Your task to perform on an android device: Go to privacy settings Image 0: 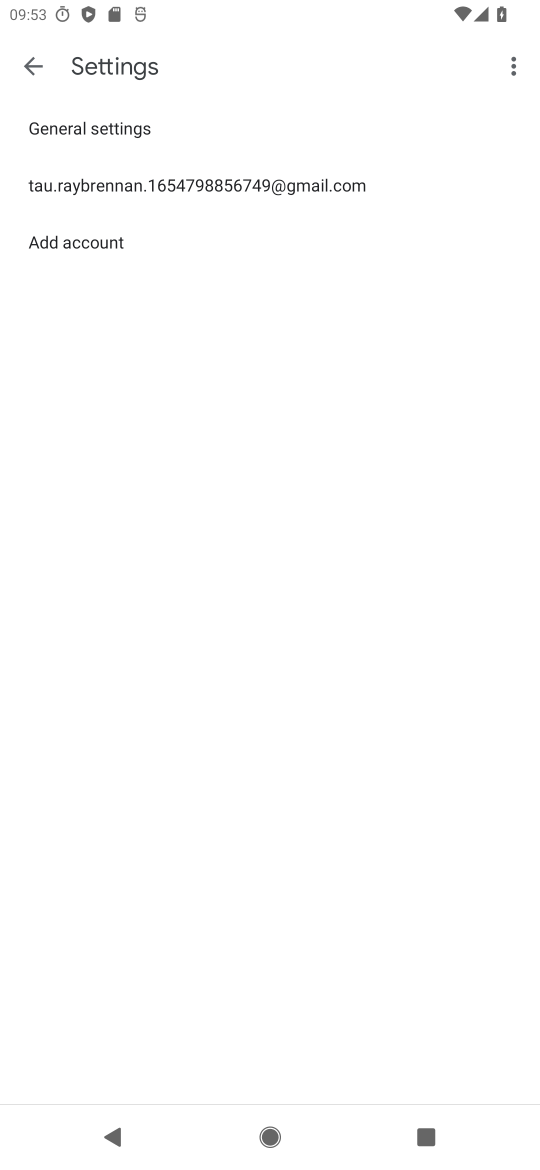
Step 0: press home button
Your task to perform on an android device: Go to privacy settings Image 1: 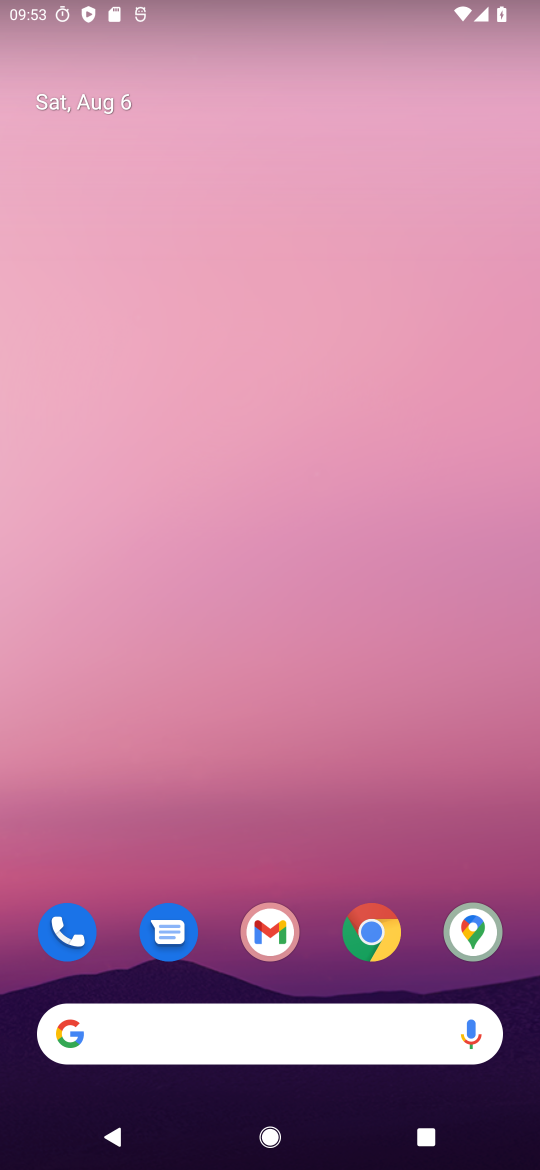
Step 1: drag from (273, 1032) to (470, 57)
Your task to perform on an android device: Go to privacy settings Image 2: 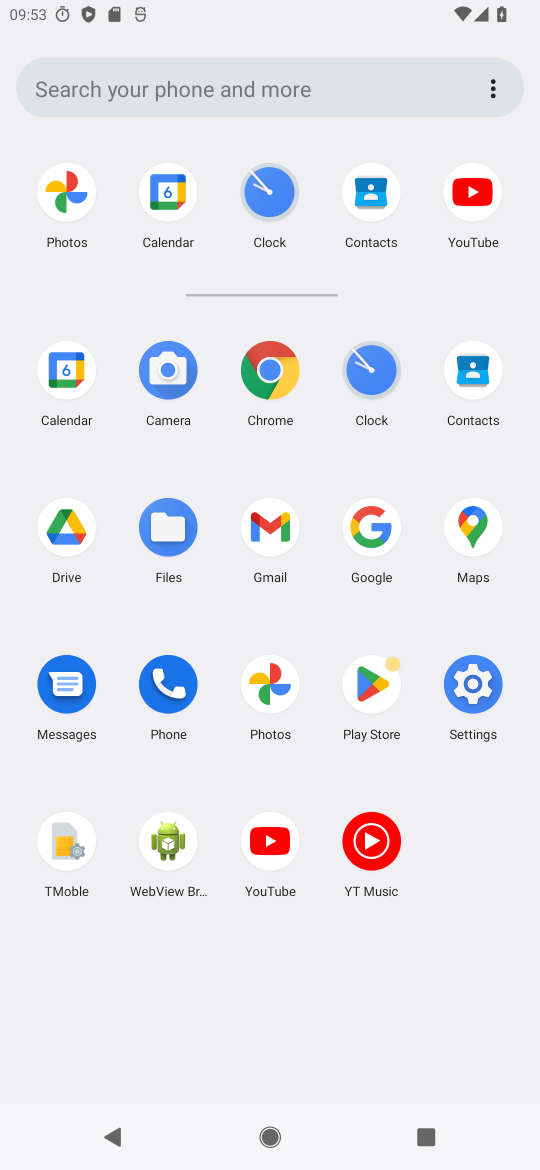
Step 2: click (473, 675)
Your task to perform on an android device: Go to privacy settings Image 3: 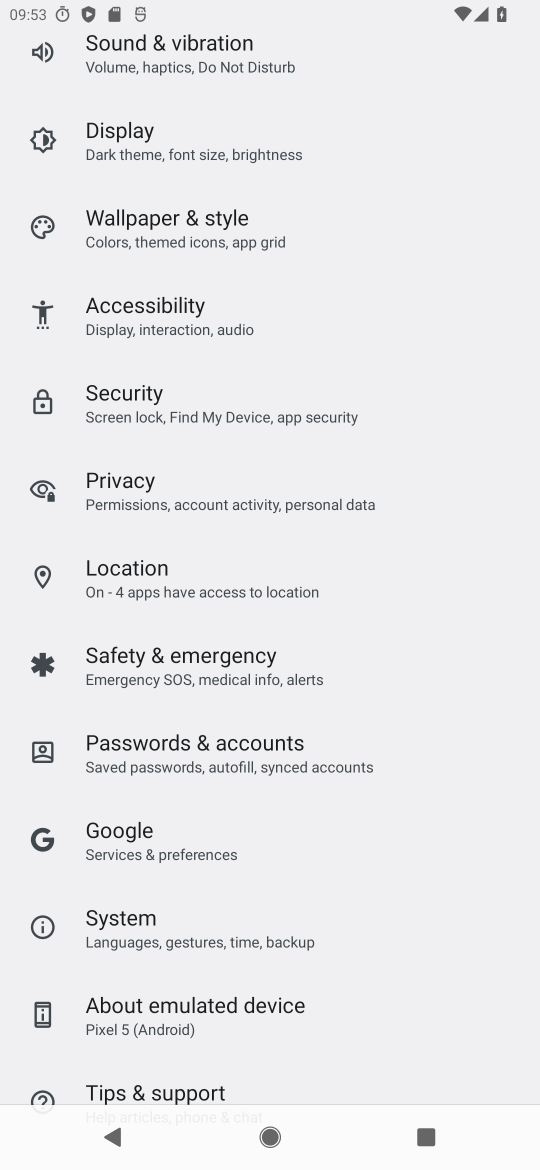
Step 3: click (156, 489)
Your task to perform on an android device: Go to privacy settings Image 4: 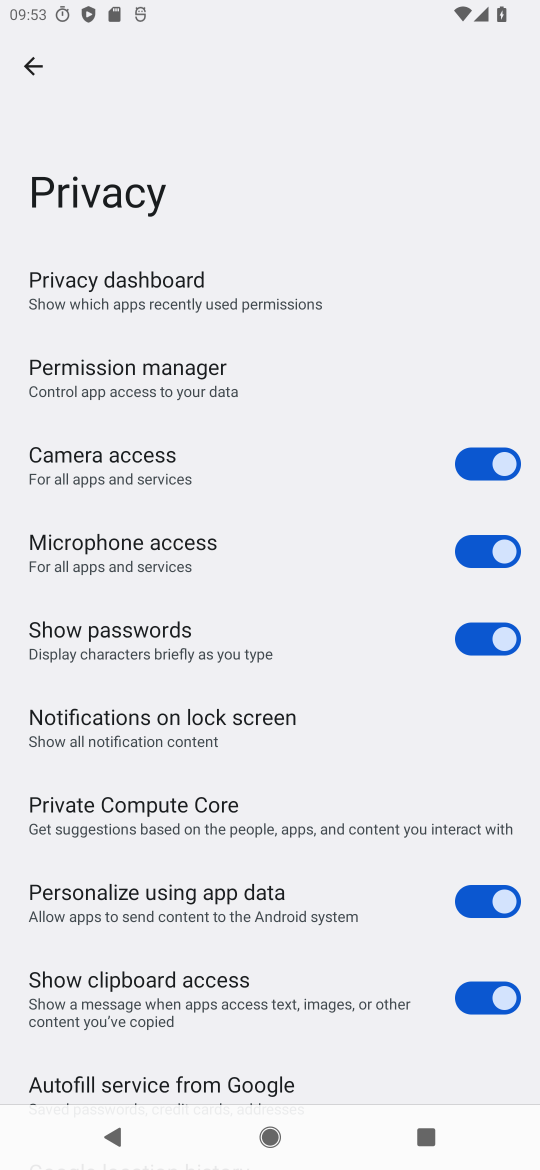
Step 4: task complete